Your task to perform on an android device: When is my next appointment? Image 0: 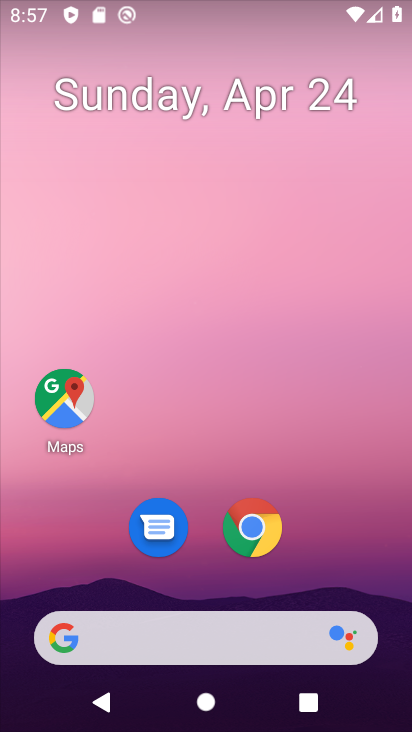
Step 0: drag from (345, 541) to (312, 83)
Your task to perform on an android device: When is my next appointment? Image 1: 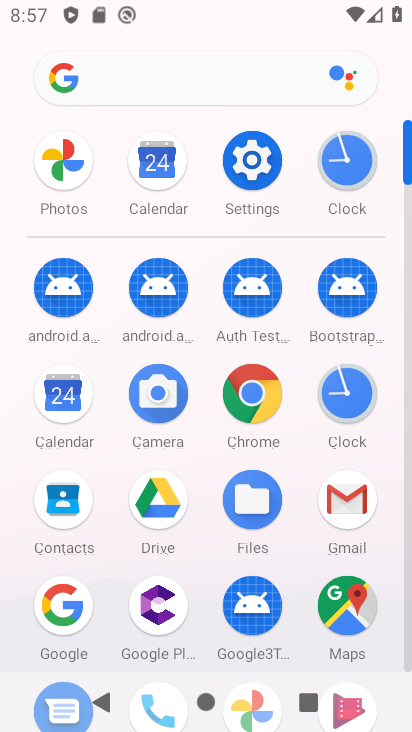
Step 1: click (73, 502)
Your task to perform on an android device: When is my next appointment? Image 2: 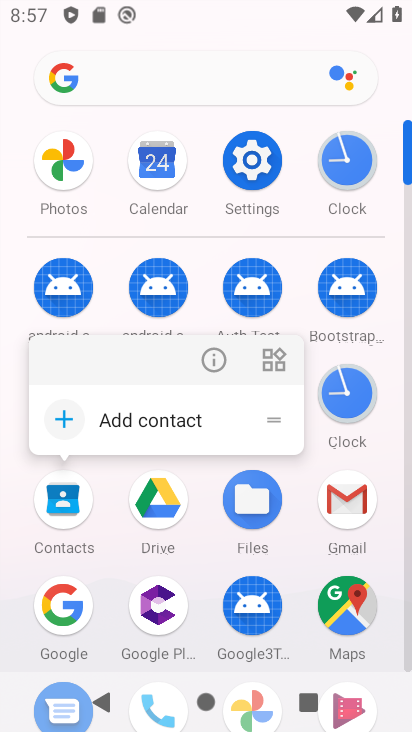
Step 2: click (150, 179)
Your task to perform on an android device: When is my next appointment? Image 3: 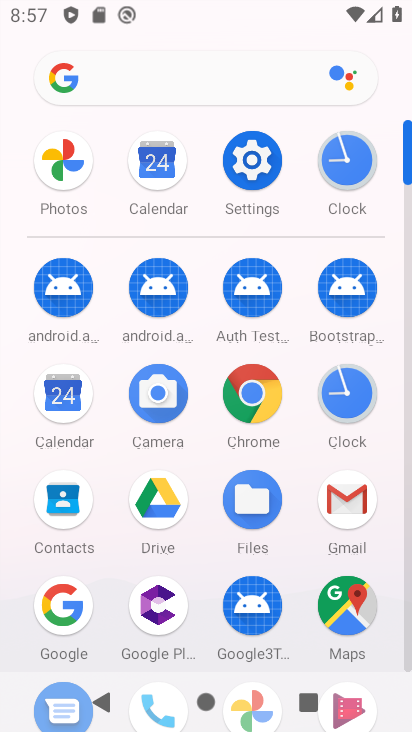
Step 3: click (150, 179)
Your task to perform on an android device: When is my next appointment? Image 4: 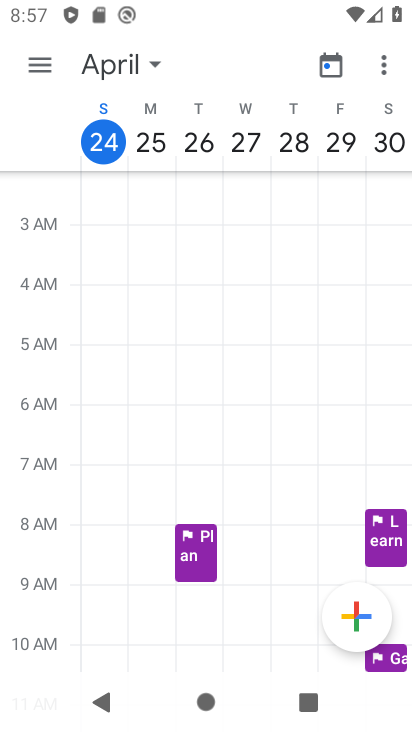
Step 4: click (42, 61)
Your task to perform on an android device: When is my next appointment? Image 5: 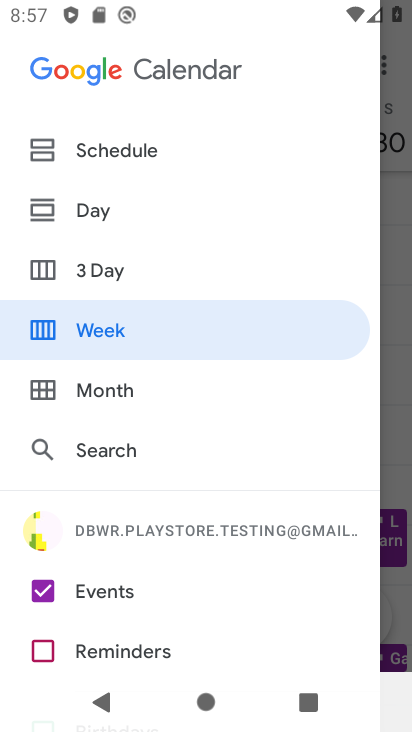
Step 5: drag from (253, 596) to (240, 248)
Your task to perform on an android device: When is my next appointment? Image 6: 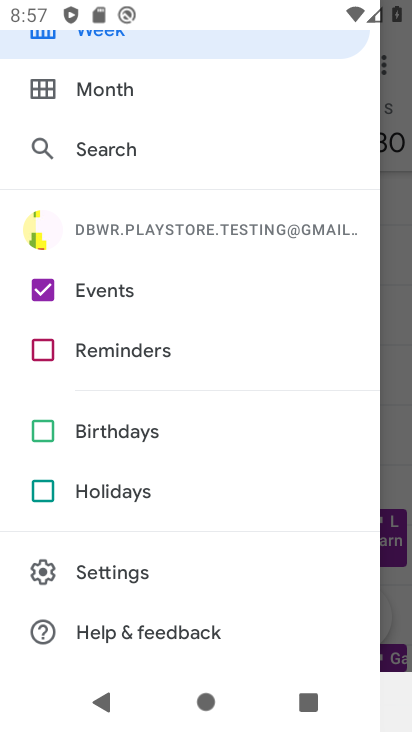
Step 6: click (37, 341)
Your task to perform on an android device: When is my next appointment? Image 7: 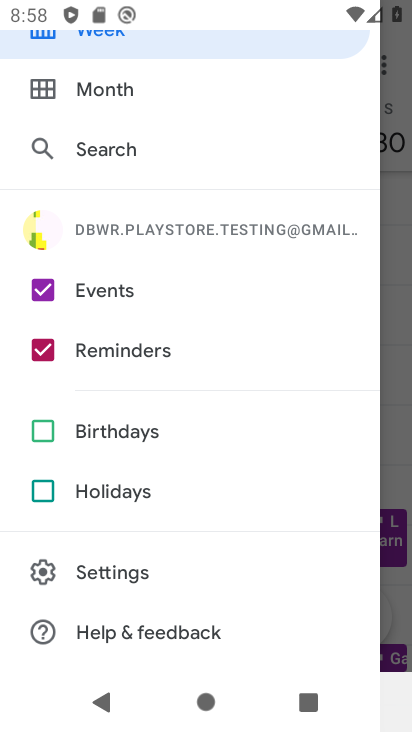
Step 7: click (47, 433)
Your task to perform on an android device: When is my next appointment? Image 8: 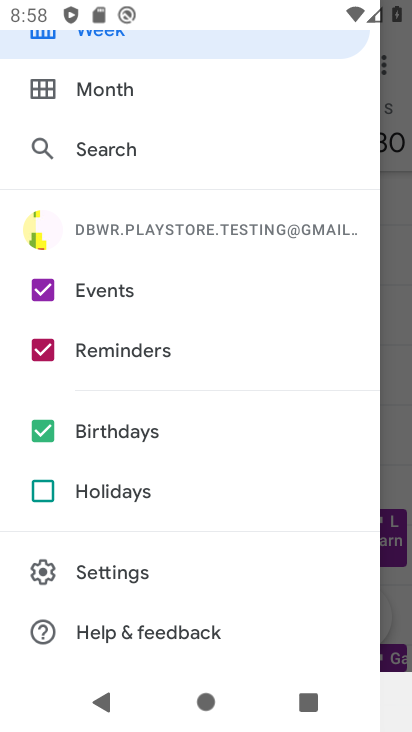
Step 8: click (42, 497)
Your task to perform on an android device: When is my next appointment? Image 9: 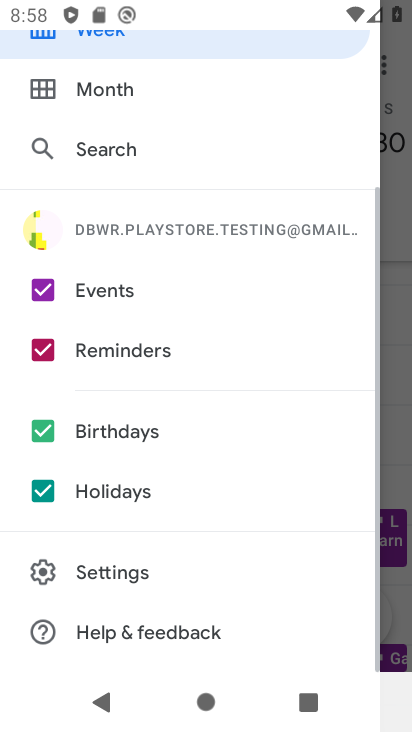
Step 9: drag from (184, 168) to (166, 641)
Your task to perform on an android device: When is my next appointment? Image 10: 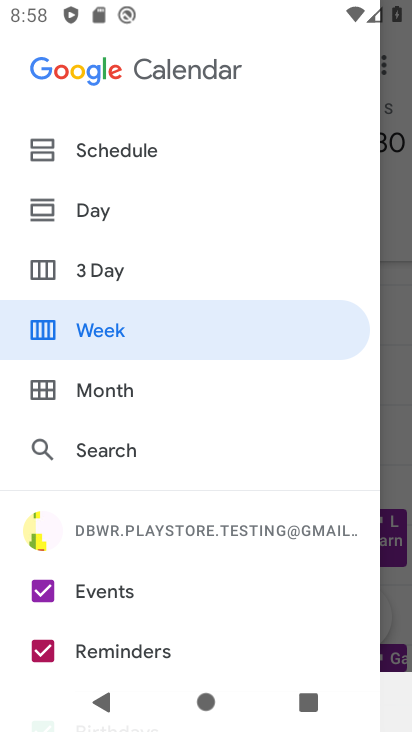
Step 10: click (128, 145)
Your task to perform on an android device: When is my next appointment? Image 11: 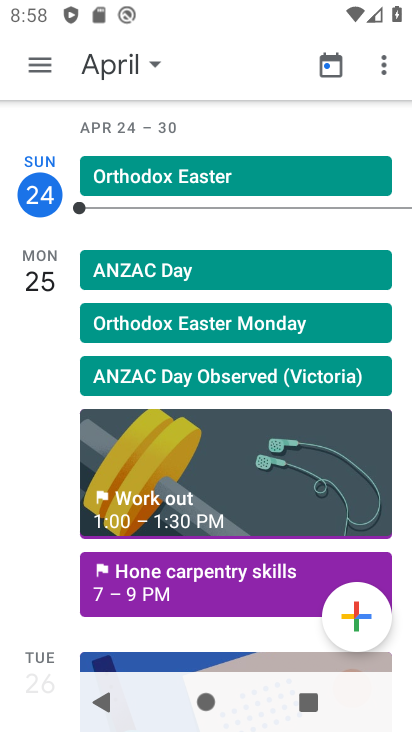
Step 11: drag from (258, 416) to (256, 278)
Your task to perform on an android device: When is my next appointment? Image 12: 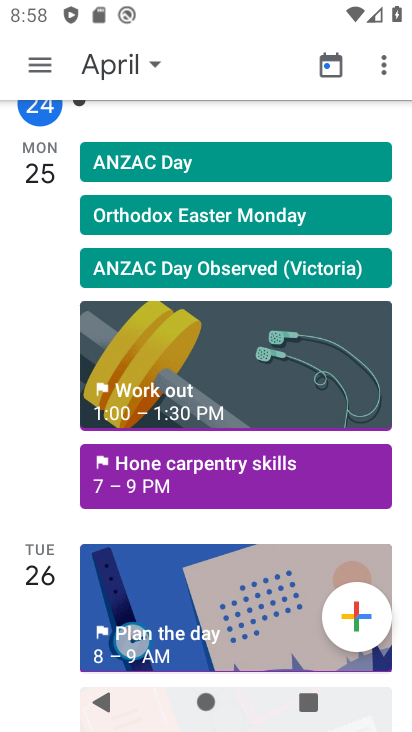
Step 12: click (139, 374)
Your task to perform on an android device: When is my next appointment? Image 13: 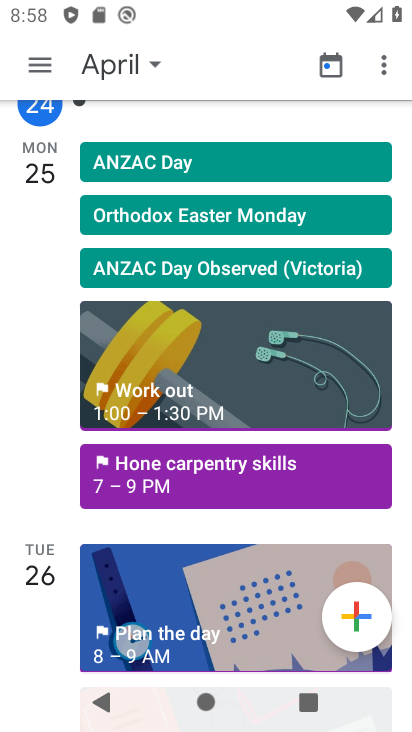
Step 13: task complete